Your task to perform on an android device: open app "DuckDuckGo Privacy Browser" (install if not already installed) Image 0: 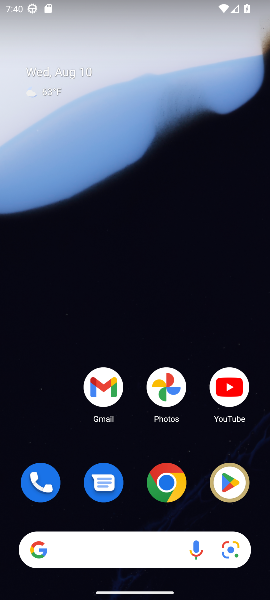
Step 0: drag from (138, 521) to (233, 367)
Your task to perform on an android device: open app "DuckDuckGo Privacy Browser" (install if not already installed) Image 1: 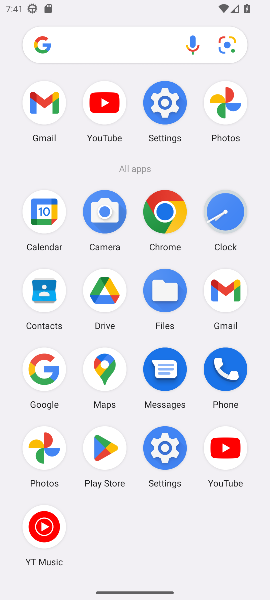
Step 1: click (106, 443)
Your task to perform on an android device: open app "DuckDuckGo Privacy Browser" (install if not already installed) Image 2: 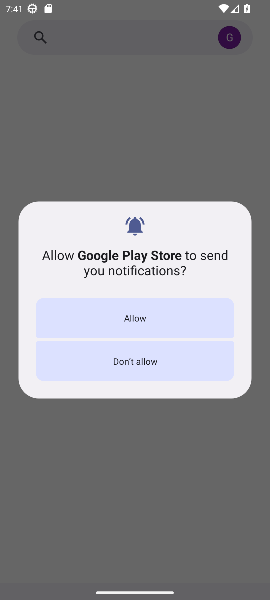
Step 2: click (153, 311)
Your task to perform on an android device: open app "DuckDuckGo Privacy Browser" (install if not already installed) Image 3: 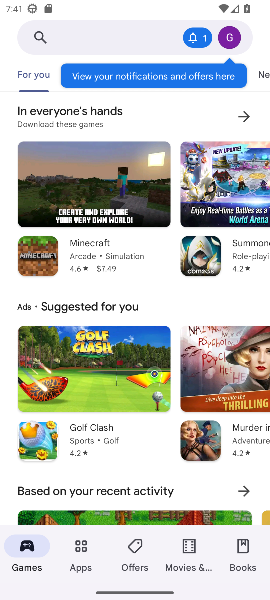
Step 3: click (106, 34)
Your task to perform on an android device: open app "DuckDuckGo Privacy Browser" (install if not already installed) Image 4: 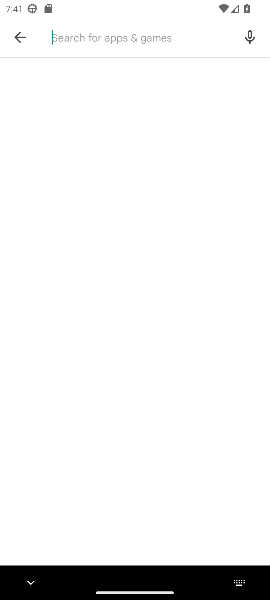
Step 4: type "duck duck go"
Your task to perform on an android device: open app "DuckDuckGo Privacy Browser" (install if not already installed) Image 5: 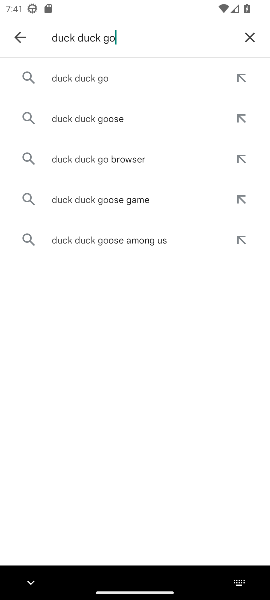
Step 5: click (94, 82)
Your task to perform on an android device: open app "DuckDuckGo Privacy Browser" (install if not already installed) Image 6: 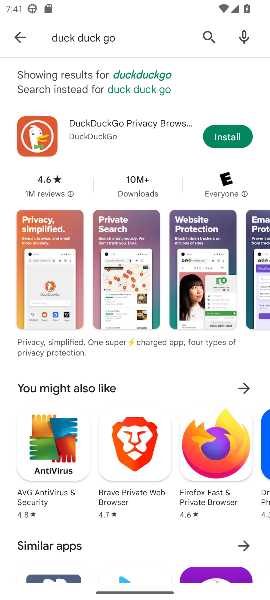
Step 6: click (228, 136)
Your task to perform on an android device: open app "DuckDuckGo Privacy Browser" (install if not already installed) Image 7: 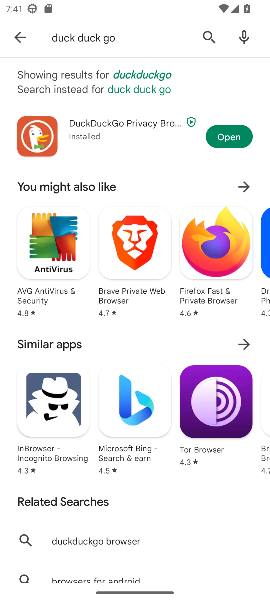
Step 7: click (211, 122)
Your task to perform on an android device: open app "DuckDuckGo Privacy Browser" (install if not already installed) Image 8: 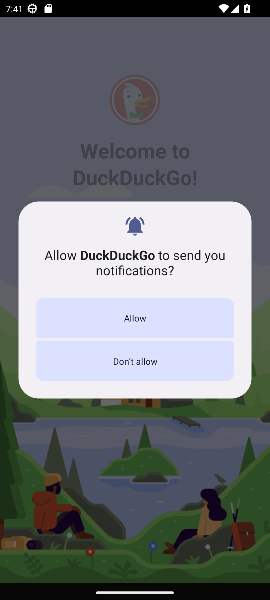
Step 8: click (151, 320)
Your task to perform on an android device: open app "DuckDuckGo Privacy Browser" (install if not already installed) Image 9: 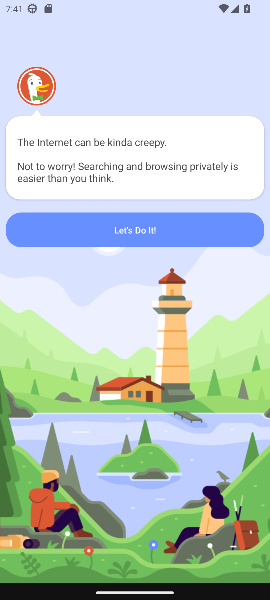
Step 9: task complete